Your task to perform on an android device: Open the calendar app, open the side menu, and click the "Day" option Image 0: 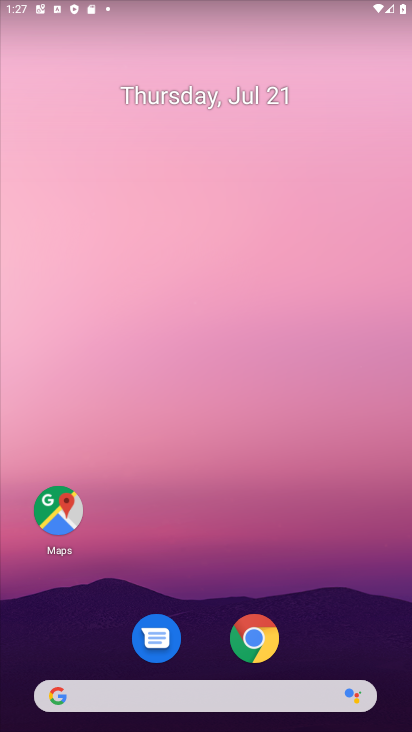
Step 0: drag from (101, 722) to (202, 3)
Your task to perform on an android device: Open the calendar app, open the side menu, and click the "Day" option Image 1: 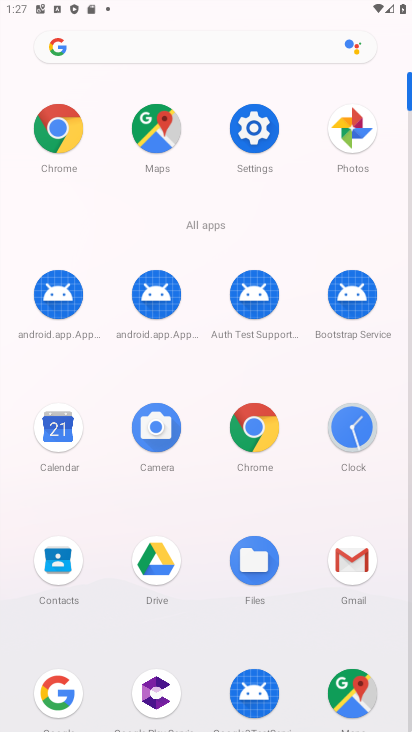
Step 1: click (65, 434)
Your task to perform on an android device: Open the calendar app, open the side menu, and click the "Day" option Image 2: 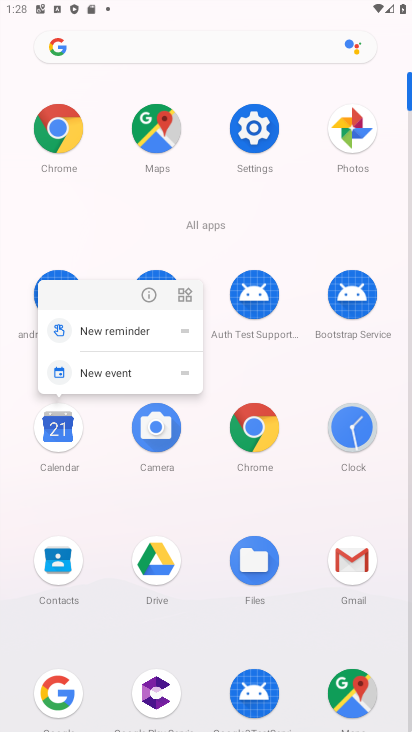
Step 2: click (70, 444)
Your task to perform on an android device: Open the calendar app, open the side menu, and click the "Day" option Image 3: 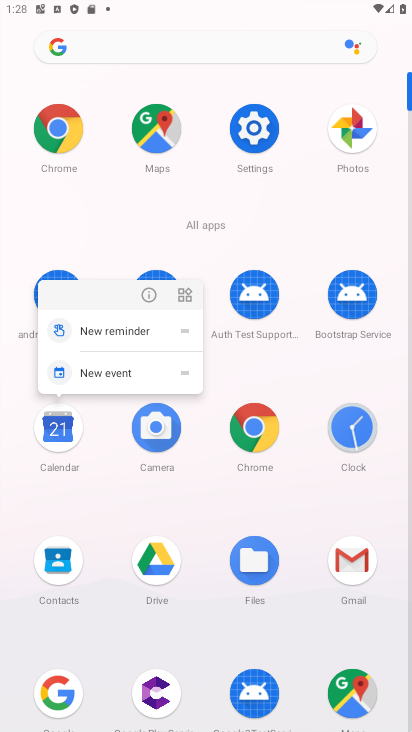
Step 3: click (70, 444)
Your task to perform on an android device: Open the calendar app, open the side menu, and click the "Day" option Image 4: 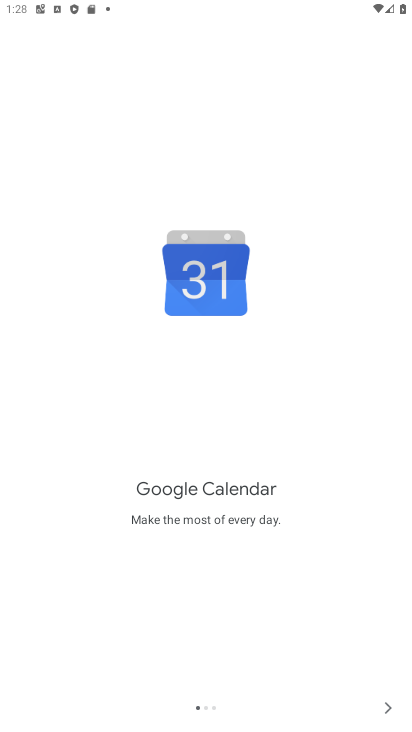
Step 4: click (384, 709)
Your task to perform on an android device: Open the calendar app, open the side menu, and click the "Day" option Image 5: 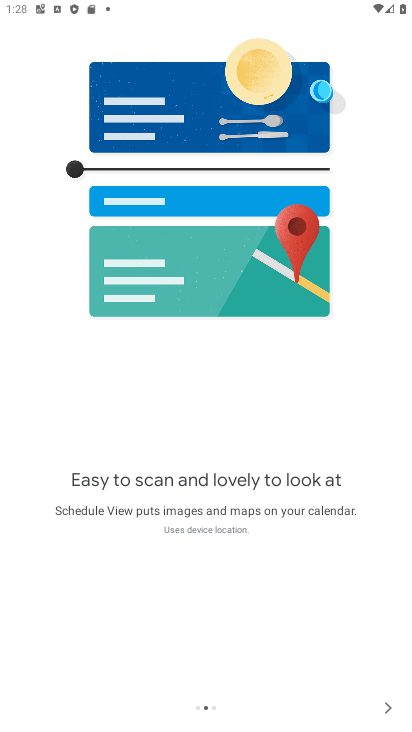
Step 5: click (384, 709)
Your task to perform on an android device: Open the calendar app, open the side menu, and click the "Day" option Image 6: 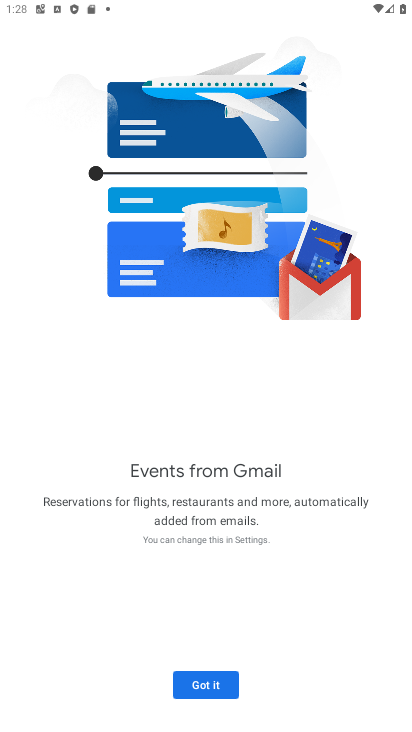
Step 6: click (209, 681)
Your task to perform on an android device: Open the calendar app, open the side menu, and click the "Day" option Image 7: 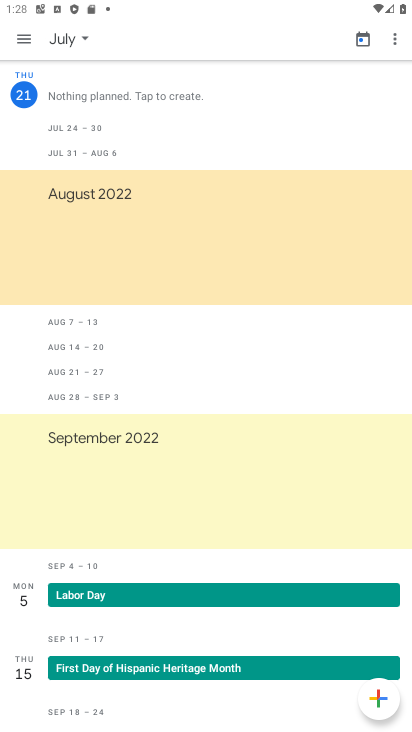
Step 7: click (25, 39)
Your task to perform on an android device: Open the calendar app, open the side menu, and click the "Day" option Image 8: 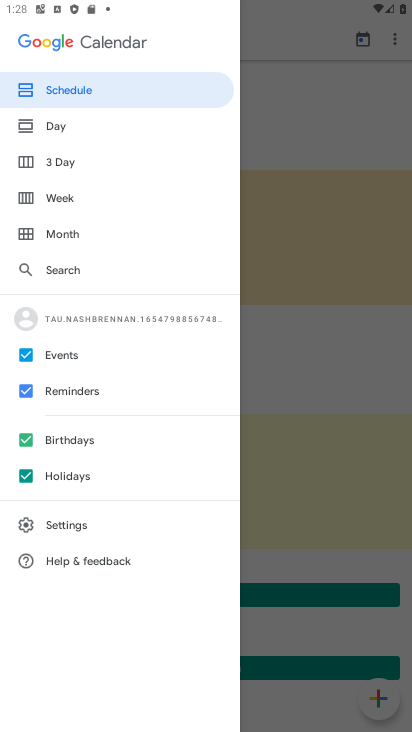
Step 8: click (58, 128)
Your task to perform on an android device: Open the calendar app, open the side menu, and click the "Day" option Image 9: 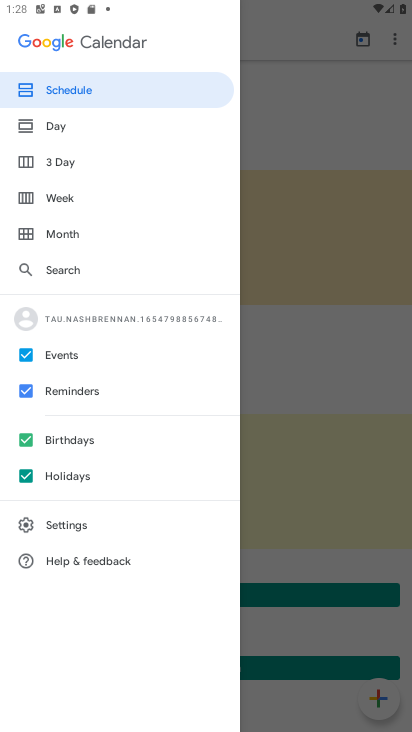
Step 9: click (58, 128)
Your task to perform on an android device: Open the calendar app, open the side menu, and click the "Day" option Image 10: 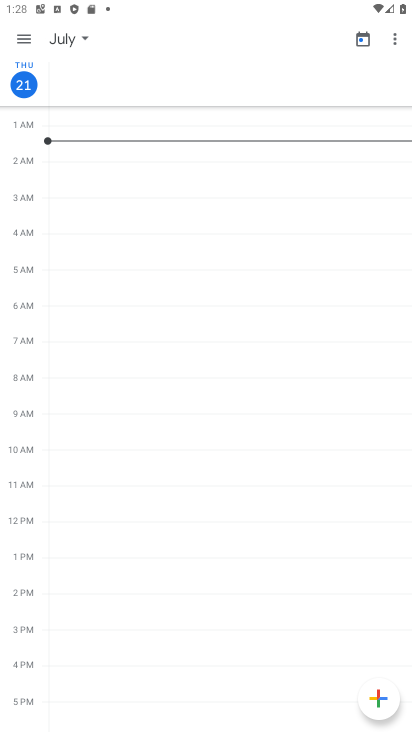
Step 10: task complete